Your task to perform on an android device: clear all cookies in the chrome app Image 0: 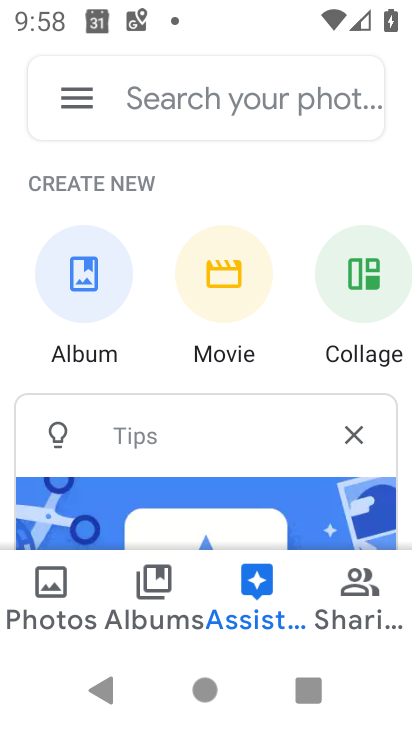
Step 0: press home button
Your task to perform on an android device: clear all cookies in the chrome app Image 1: 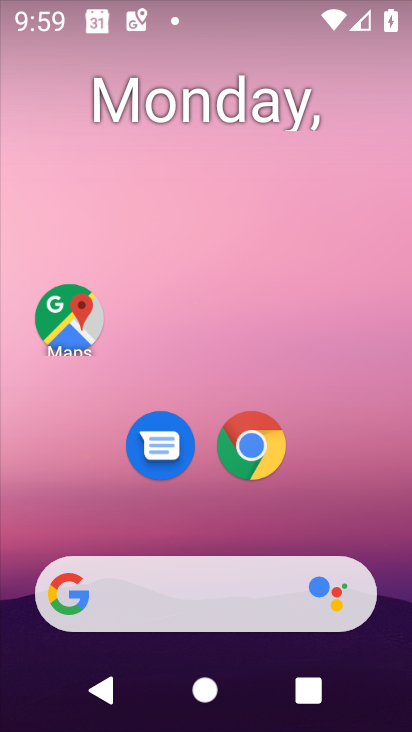
Step 1: click (249, 452)
Your task to perform on an android device: clear all cookies in the chrome app Image 2: 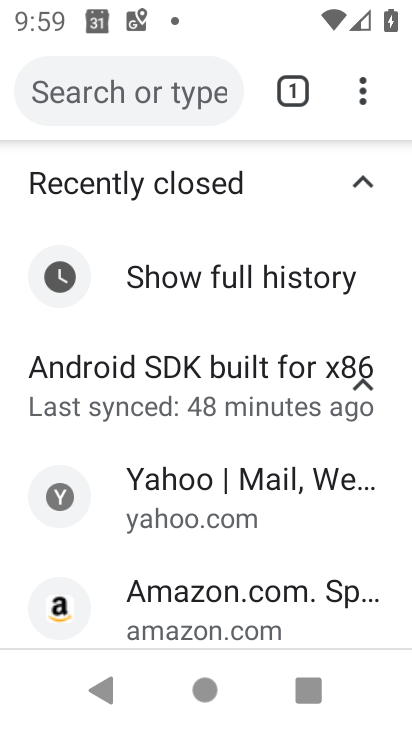
Step 2: click (370, 90)
Your task to perform on an android device: clear all cookies in the chrome app Image 3: 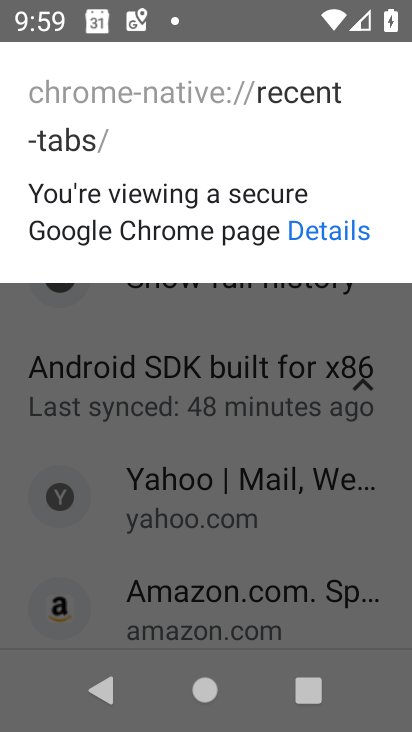
Step 3: click (253, 334)
Your task to perform on an android device: clear all cookies in the chrome app Image 4: 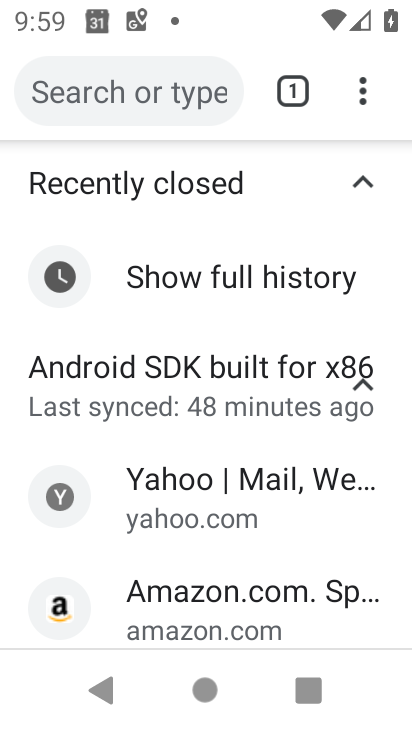
Step 4: click (359, 85)
Your task to perform on an android device: clear all cookies in the chrome app Image 5: 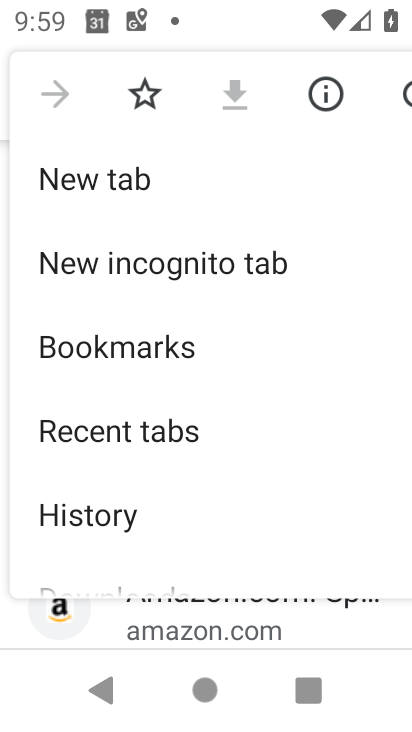
Step 5: drag from (218, 551) to (220, 223)
Your task to perform on an android device: clear all cookies in the chrome app Image 6: 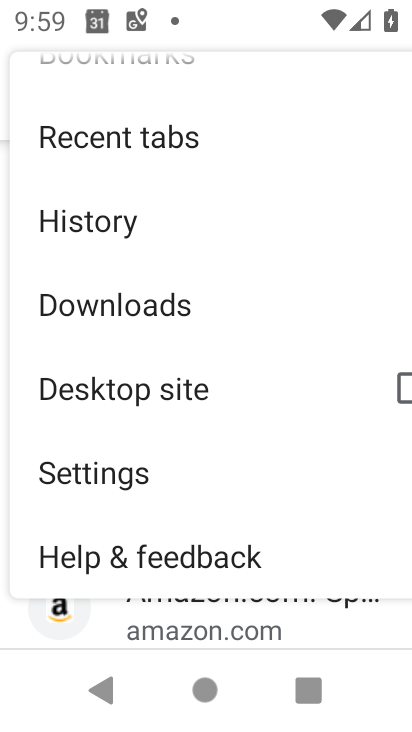
Step 6: click (168, 486)
Your task to perform on an android device: clear all cookies in the chrome app Image 7: 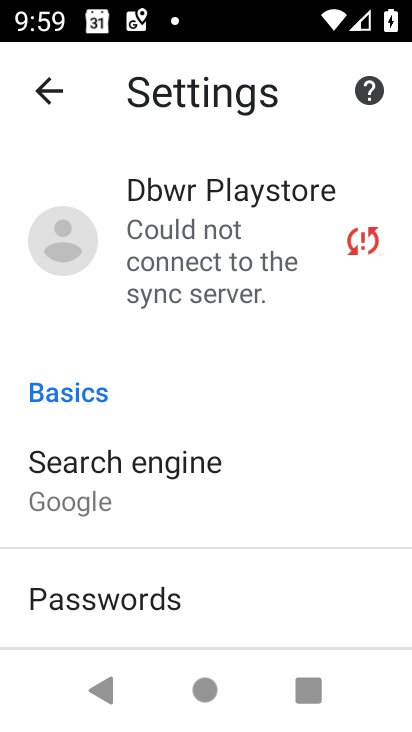
Step 7: drag from (186, 620) to (179, 113)
Your task to perform on an android device: clear all cookies in the chrome app Image 8: 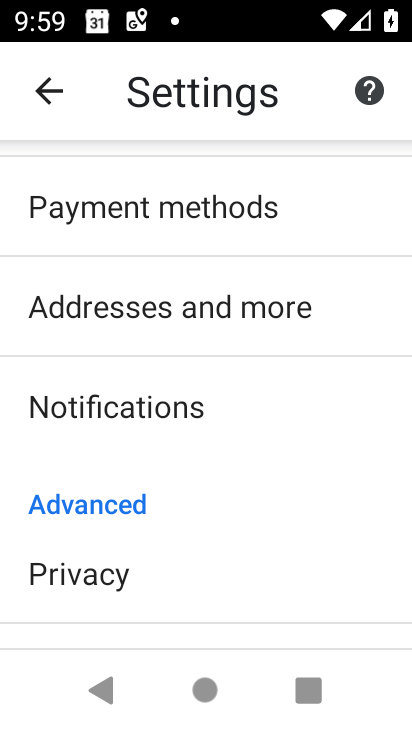
Step 8: drag from (216, 599) to (238, 168)
Your task to perform on an android device: clear all cookies in the chrome app Image 9: 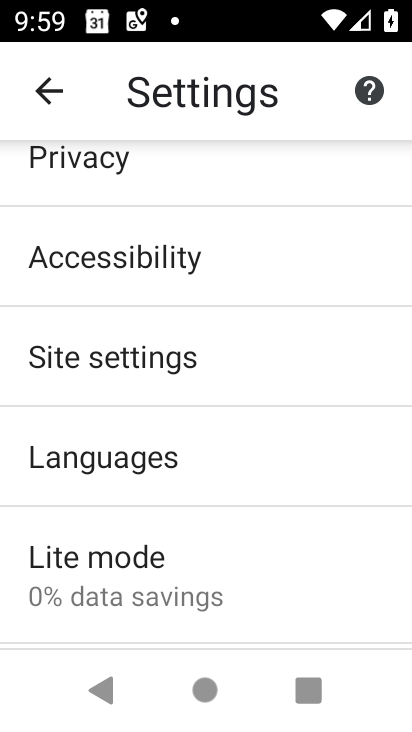
Step 9: click (212, 373)
Your task to perform on an android device: clear all cookies in the chrome app Image 10: 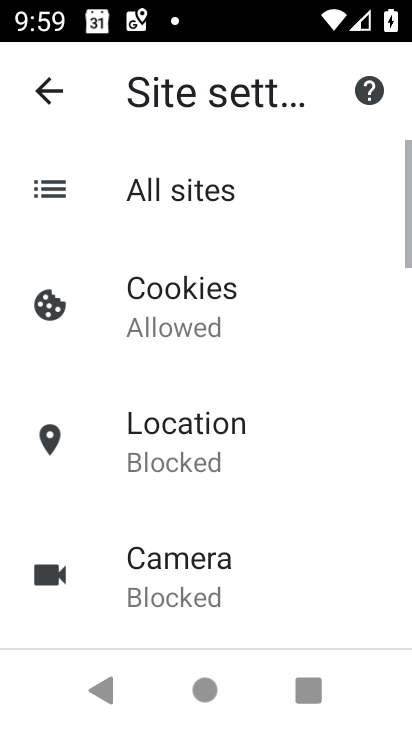
Step 10: click (194, 315)
Your task to perform on an android device: clear all cookies in the chrome app Image 11: 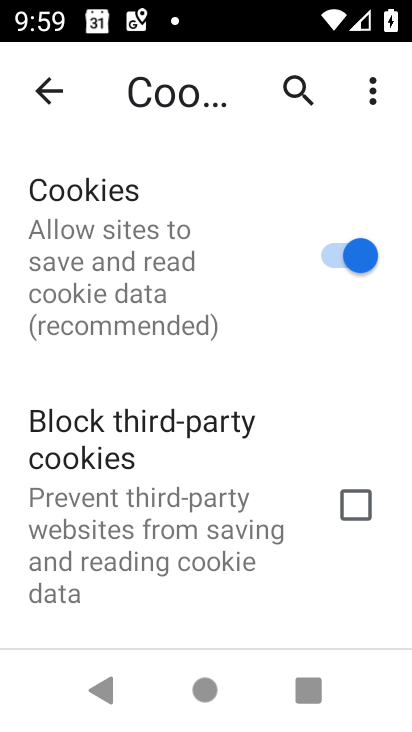
Step 11: task complete